Your task to perform on an android device: turn on priority inbox in the gmail app Image 0: 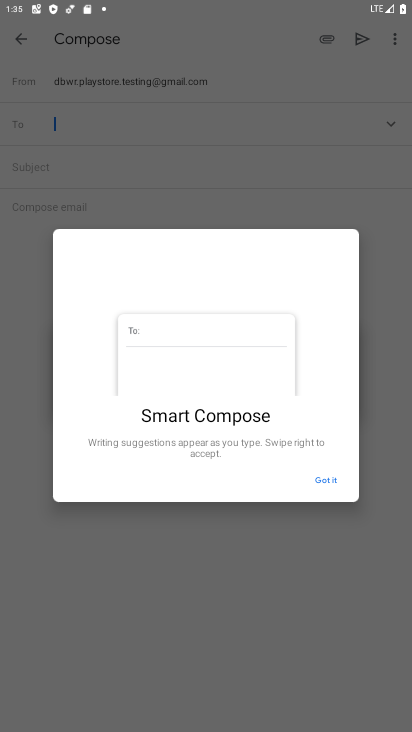
Step 0: press home button
Your task to perform on an android device: turn on priority inbox in the gmail app Image 1: 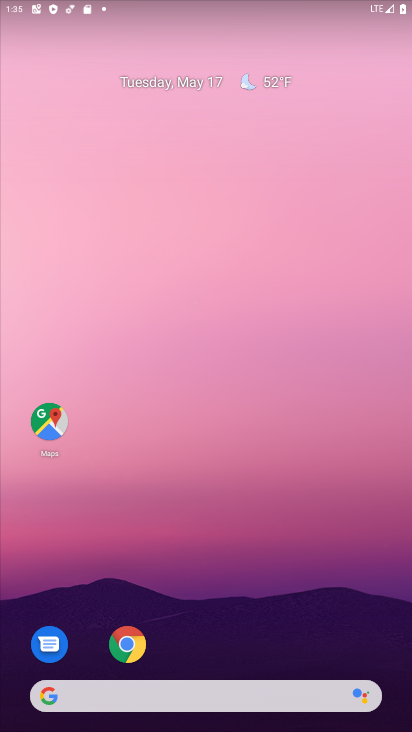
Step 1: drag from (225, 688) to (250, 224)
Your task to perform on an android device: turn on priority inbox in the gmail app Image 2: 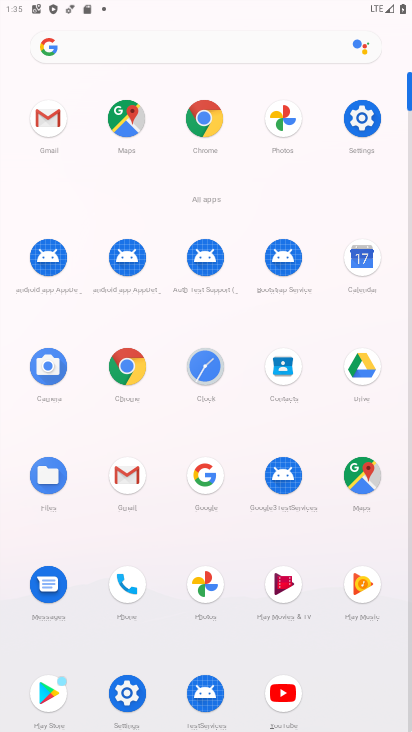
Step 2: click (125, 479)
Your task to perform on an android device: turn on priority inbox in the gmail app Image 3: 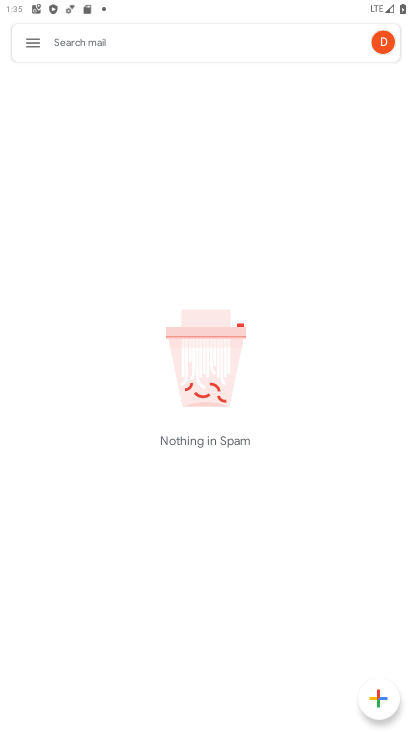
Step 3: click (30, 35)
Your task to perform on an android device: turn on priority inbox in the gmail app Image 4: 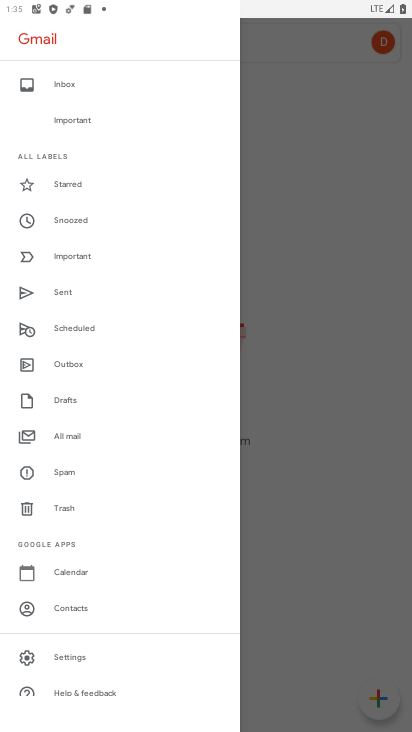
Step 4: click (70, 651)
Your task to perform on an android device: turn on priority inbox in the gmail app Image 5: 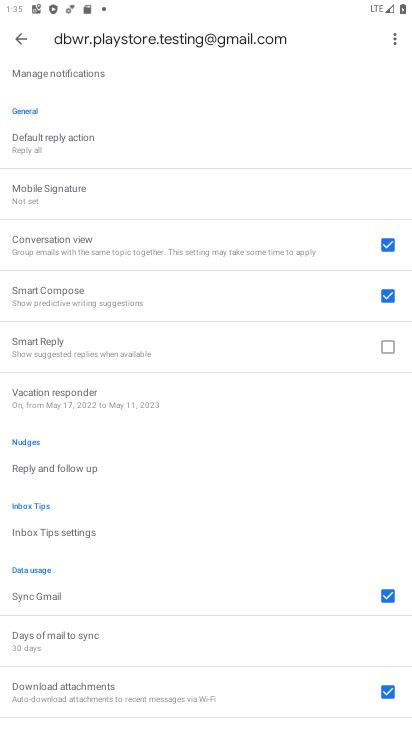
Step 5: drag from (86, 148) to (96, 507)
Your task to perform on an android device: turn on priority inbox in the gmail app Image 6: 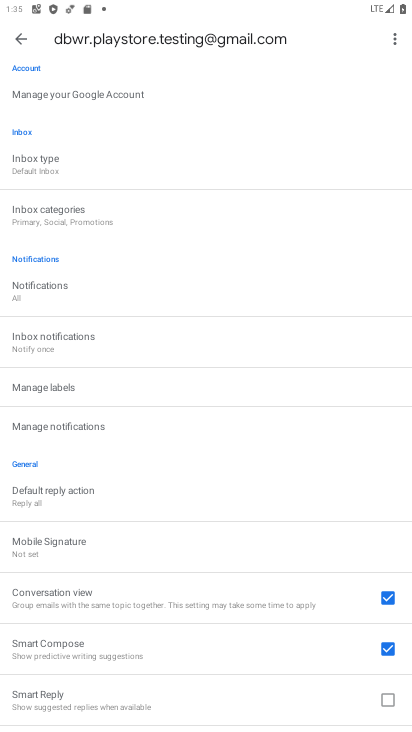
Step 6: click (58, 165)
Your task to perform on an android device: turn on priority inbox in the gmail app Image 7: 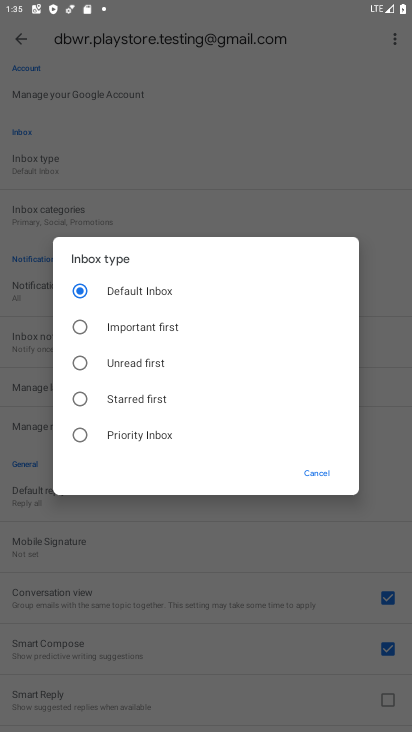
Step 7: click (126, 428)
Your task to perform on an android device: turn on priority inbox in the gmail app Image 8: 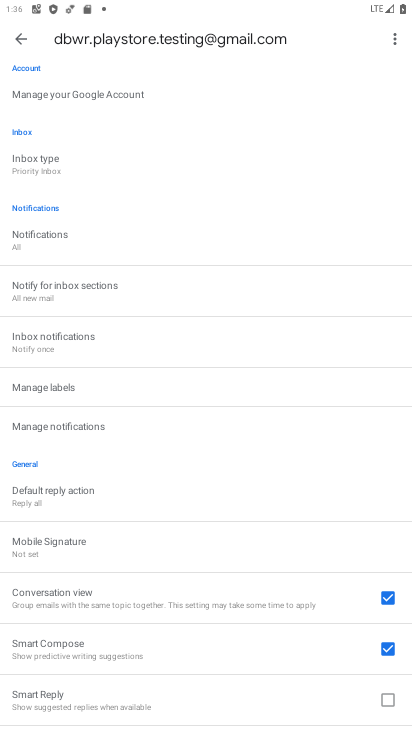
Step 8: task complete